Your task to perform on an android device: find photos in the google photos app Image 0: 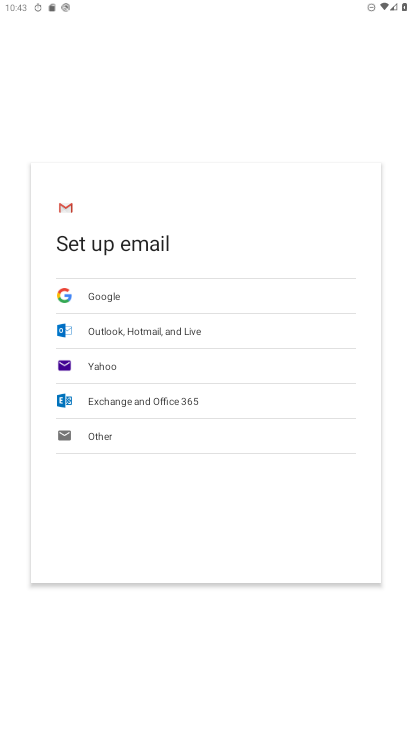
Step 0: press home button
Your task to perform on an android device: find photos in the google photos app Image 1: 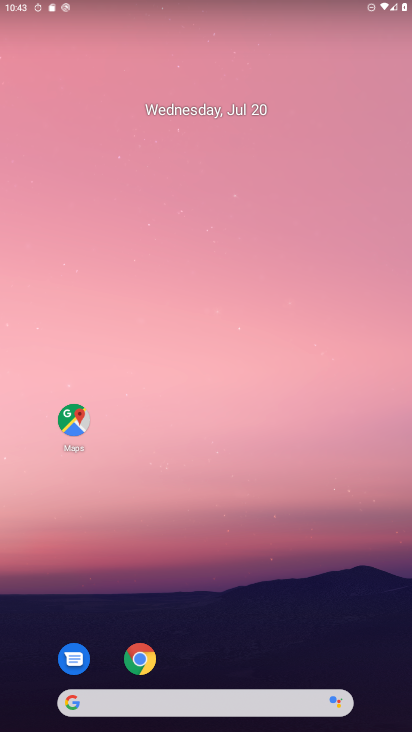
Step 1: drag from (331, 617) to (221, 58)
Your task to perform on an android device: find photos in the google photos app Image 2: 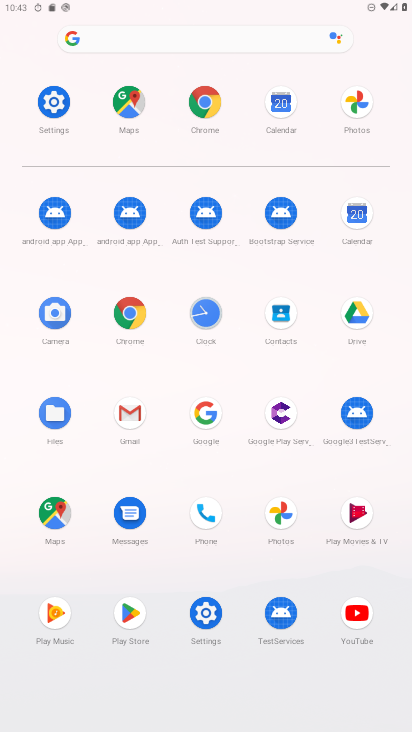
Step 2: click (277, 509)
Your task to perform on an android device: find photos in the google photos app Image 3: 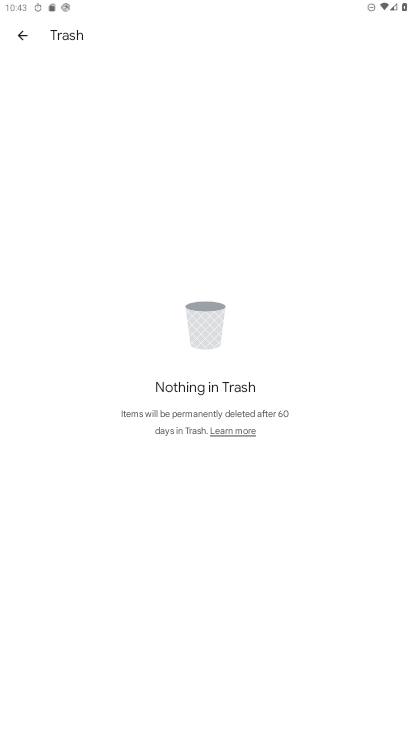
Step 3: click (25, 27)
Your task to perform on an android device: find photos in the google photos app Image 4: 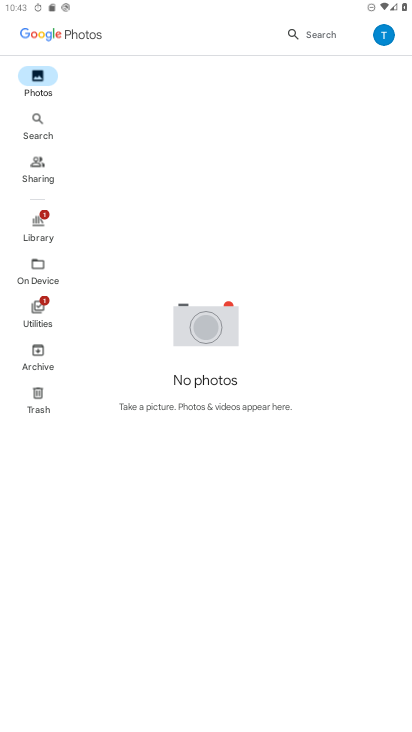
Step 4: task complete